Your task to perform on an android device: Go to Android settings Image 0: 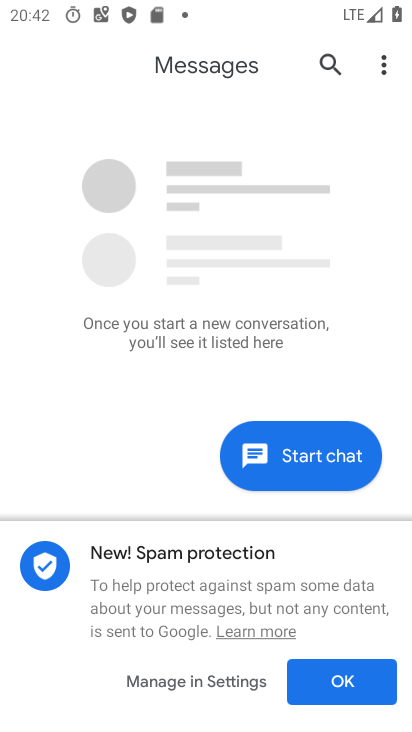
Step 0: press home button
Your task to perform on an android device: Go to Android settings Image 1: 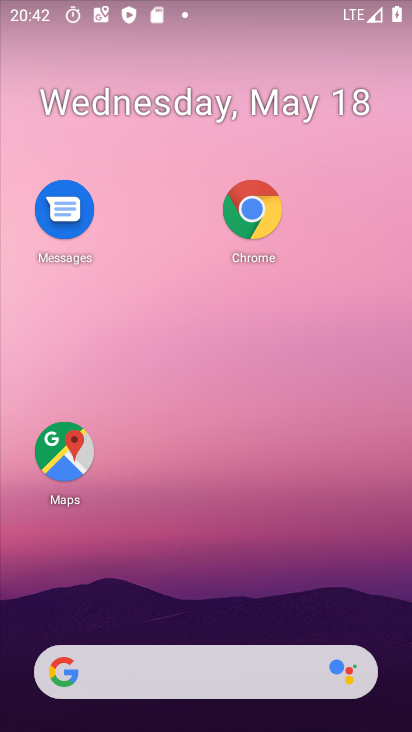
Step 1: drag from (205, 628) to (146, 85)
Your task to perform on an android device: Go to Android settings Image 2: 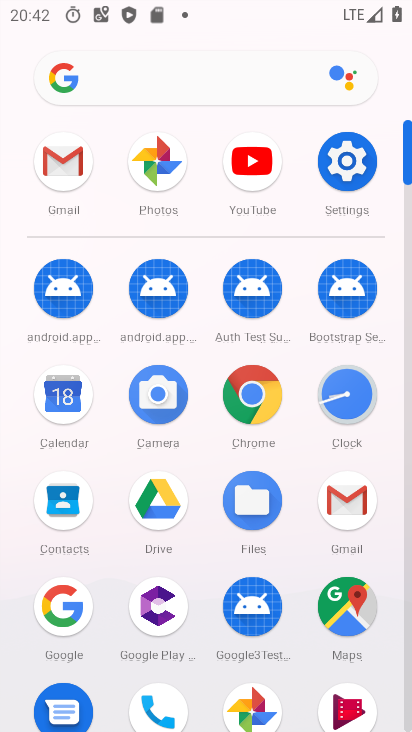
Step 2: click (333, 178)
Your task to perform on an android device: Go to Android settings Image 3: 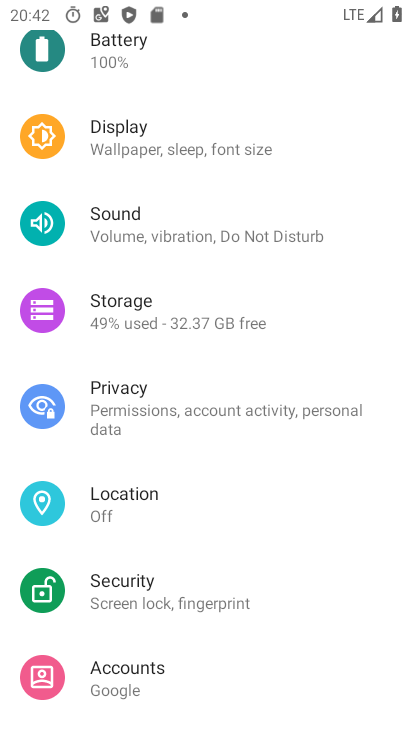
Step 3: task complete